Your task to perform on an android device: Open Google Chrome and open the bookmarks view Image 0: 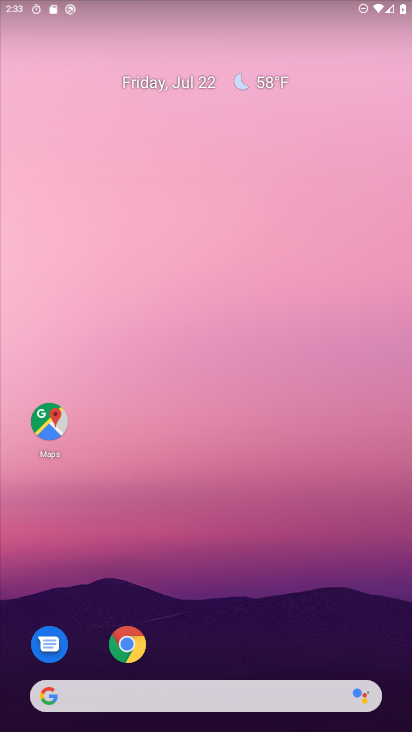
Step 0: click (140, 650)
Your task to perform on an android device: Open Google Chrome and open the bookmarks view Image 1: 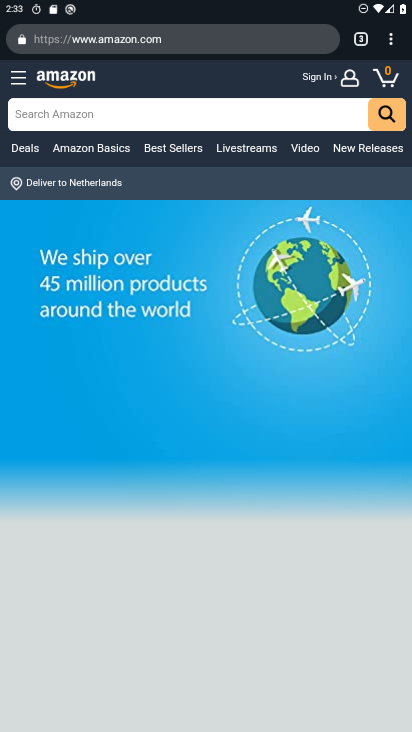
Step 1: click (388, 41)
Your task to perform on an android device: Open Google Chrome and open the bookmarks view Image 2: 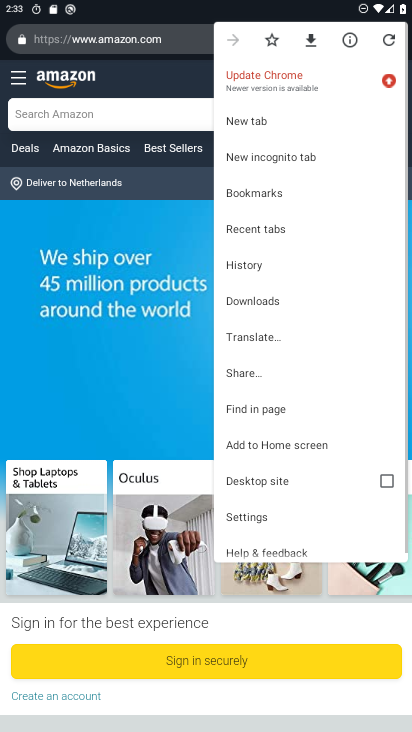
Step 2: click (274, 196)
Your task to perform on an android device: Open Google Chrome and open the bookmarks view Image 3: 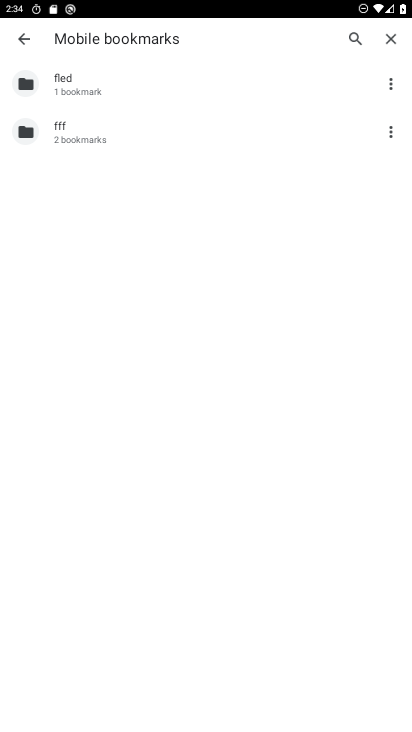
Step 3: task complete